Your task to perform on an android device: Go to privacy settings Image 0: 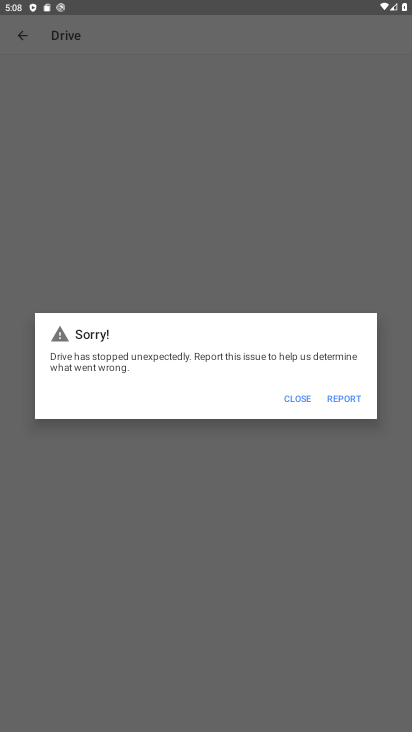
Step 0: press home button
Your task to perform on an android device: Go to privacy settings Image 1: 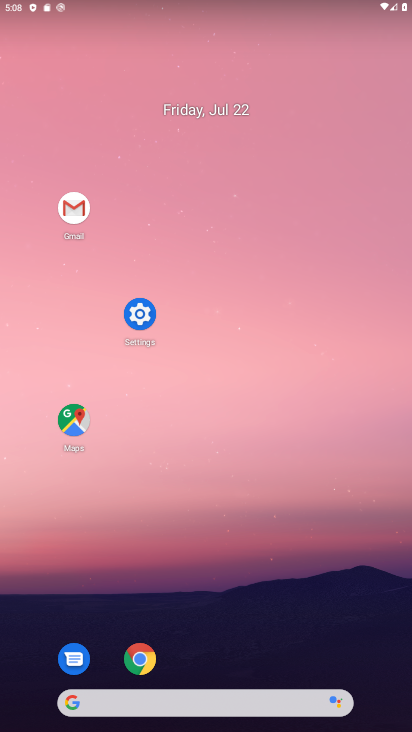
Step 1: drag from (270, 574) to (242, 79)
Your task to perform on an android device: Go to privacy settings Image 2: 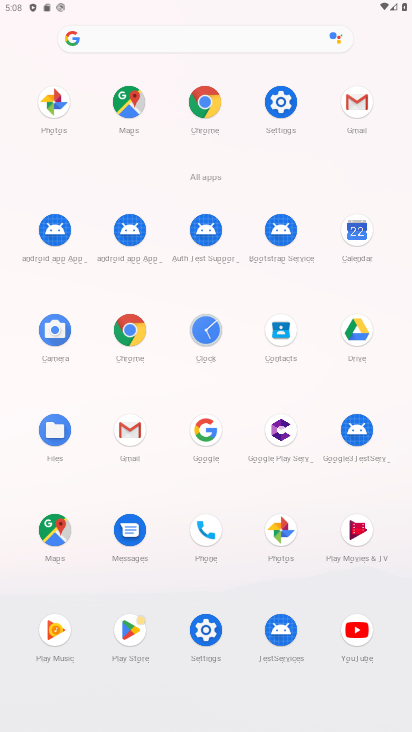
Step 2: click (278, 111)
Your task to perform on an android device: Go to privacy settings Image 3: 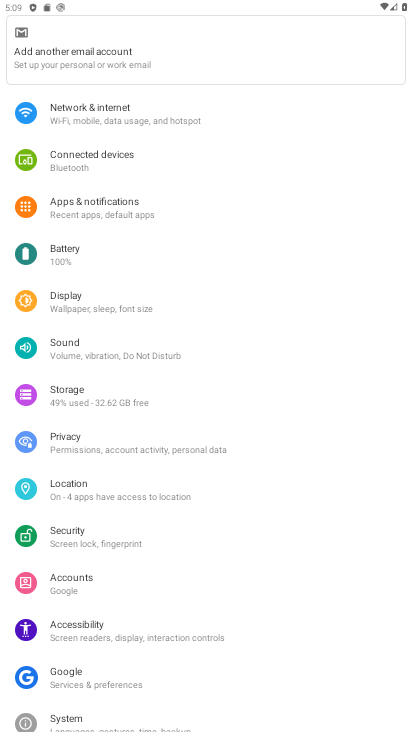
Step 3: click (134, 455)
Your task to perform on an android device: Go to privacy settings Image 4: 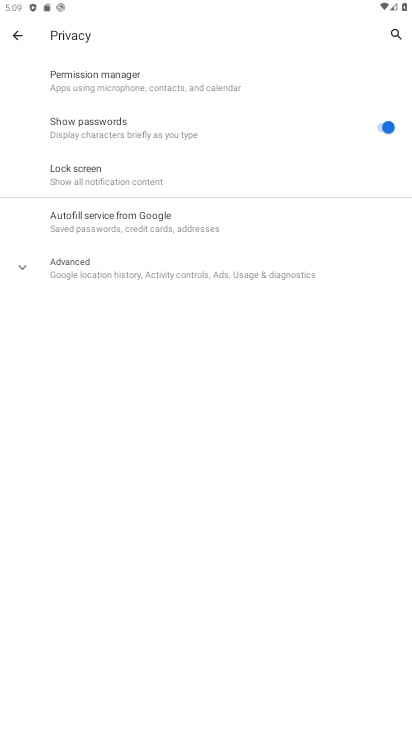
Step 4: task complete